Your task to perform on an android device: check google app version Image 0: 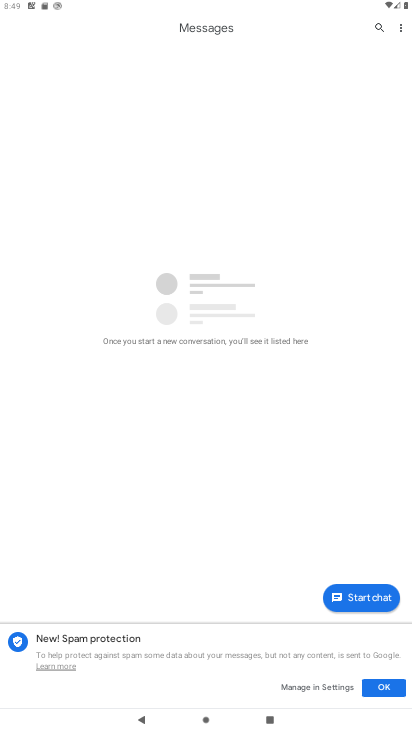
Step 0: press home button
Your task to perform on an android device: check google app version Image 1: 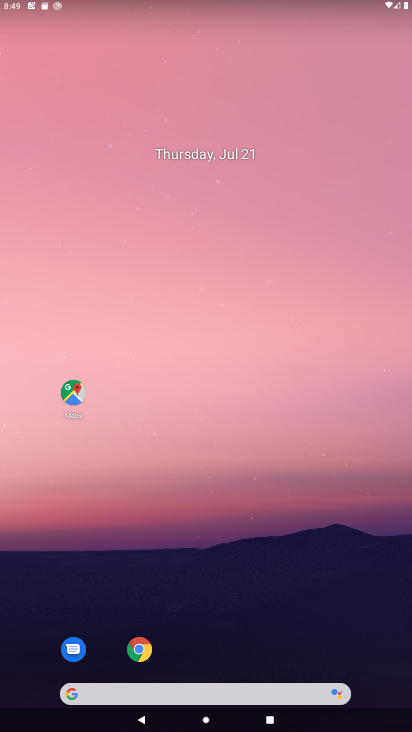
Step 1: drag from (219, 661) to (277, 122)
Your task to perform on an android device: check google app version Image 2: 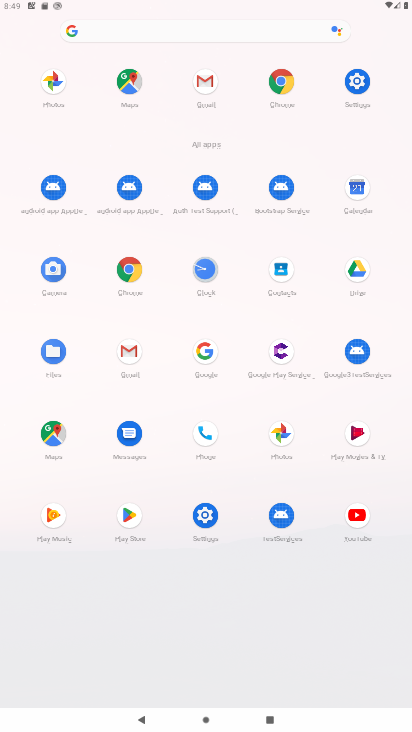
Step 2: click (207, 360)
Your task to perform on an android device: check google app version Image 3: 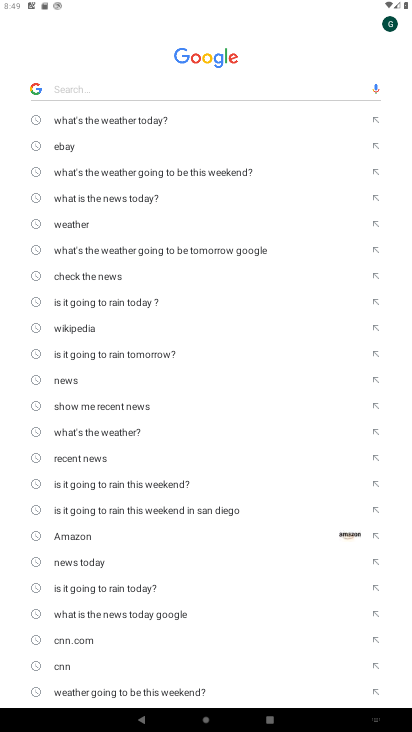
Step 3: click (390, 29)
Your task to perform on an android device: check google app version Image 4: 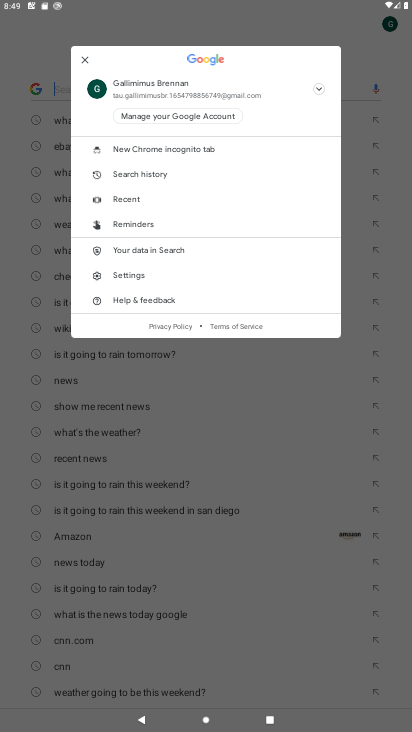
Step 4: click (144, 279)
Your task to perform on an android device: check google app version Image 5: 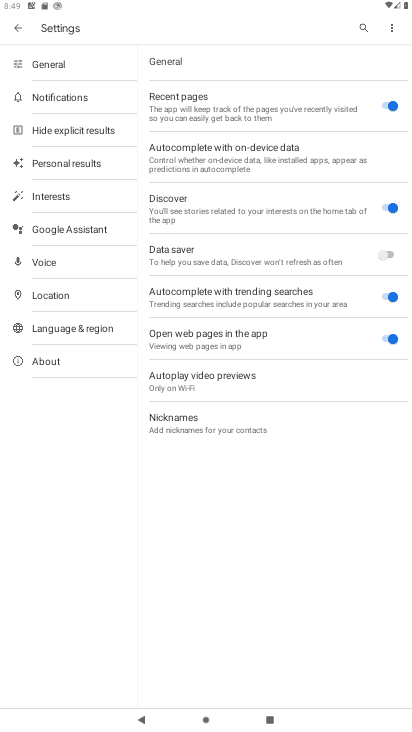
Step 5: click (41, 353)
Your task to perform on an android device: check google app version Image 6: 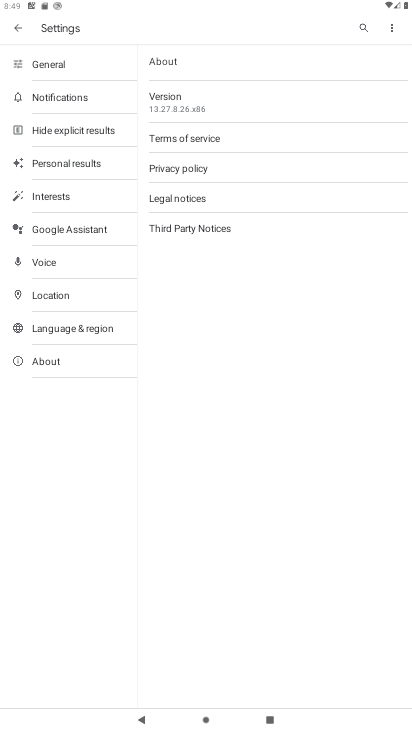
Step 6: click (186, 104)
Your task to perform on an android device: check google app version Image 7: 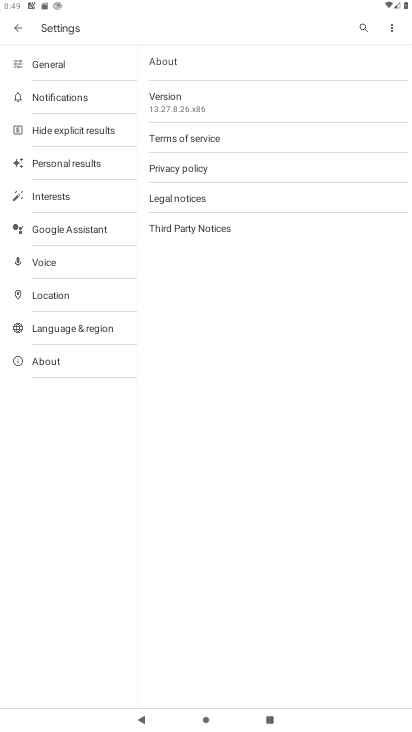
Step 7: task complete